Your task to perform on an android device: Open network settings Image 0: 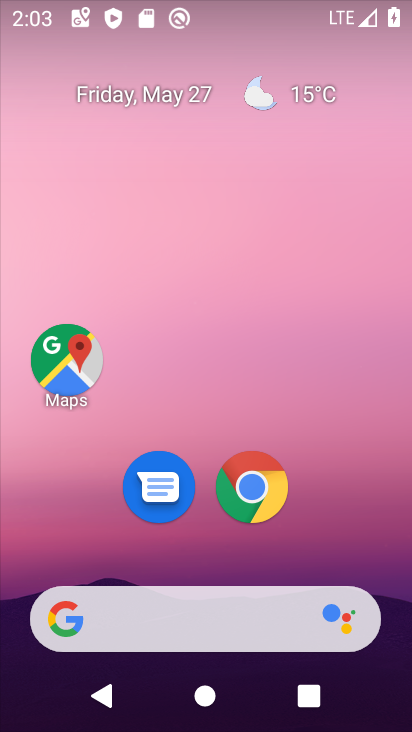
Step 0: drag from (345, 512) to (340, 146)
Your task to perform on an android device: Open network settings Image 1: 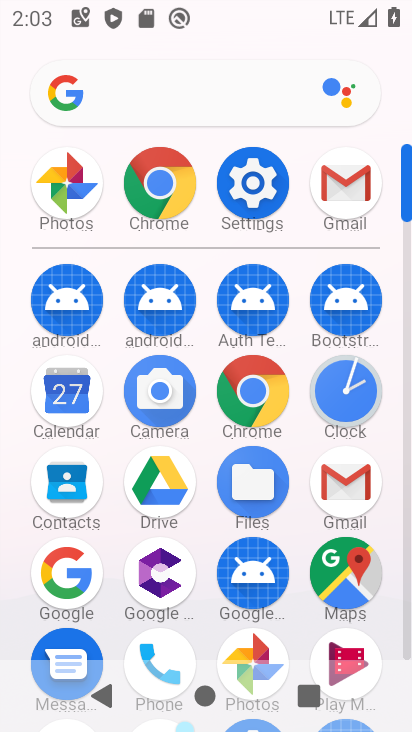
Step 1: click (273, 186)
Your task to perform on an android device: Open network settings Image 2: 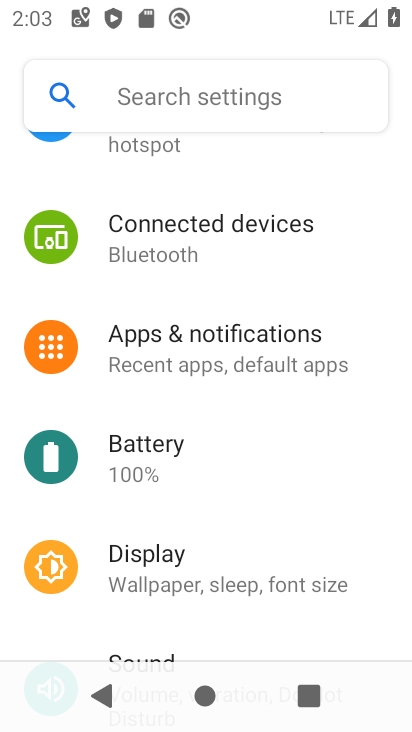
Step 2: drag from (245, 246) to (246, 481)
Your task to perform on an android device: Open network settings Image 3: 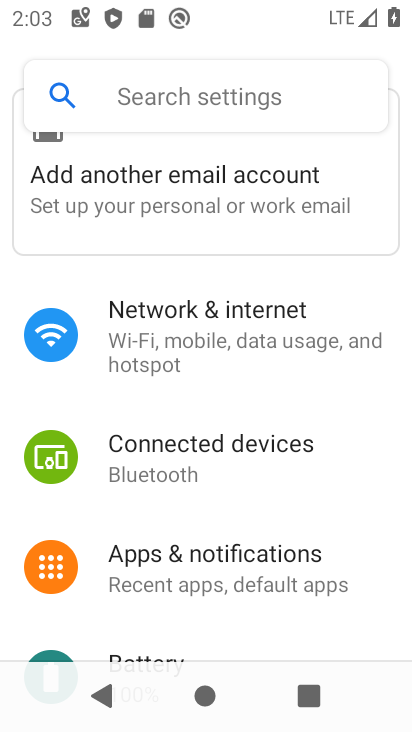
Step 3: click (247, 331)
Your task to perform on an android device: Open network settings Image 4: 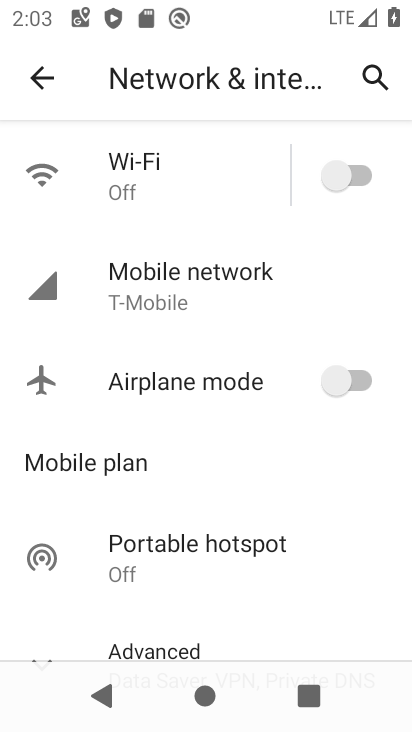
Step 4: task complete